Your task to perform on an android device: Search for vegetarian restaurants on Maps Image 0: 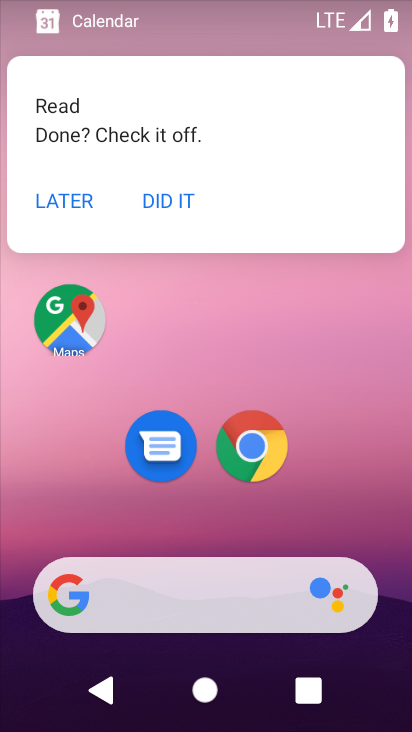
Step 0: press home button
Your task to perform on an android device: Search for vegetarian restaurants on Maps Image 1: 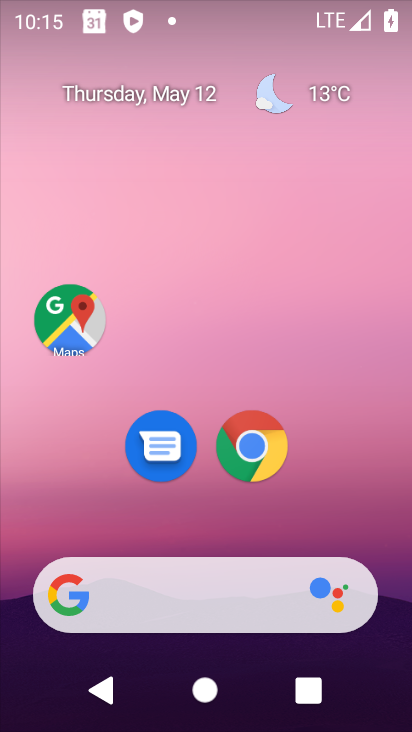
Step 1: drag from (276, 532) to (364, 60)
Your task to perform on an android device: Search for vegetarian restaurants on Maps Image 2: 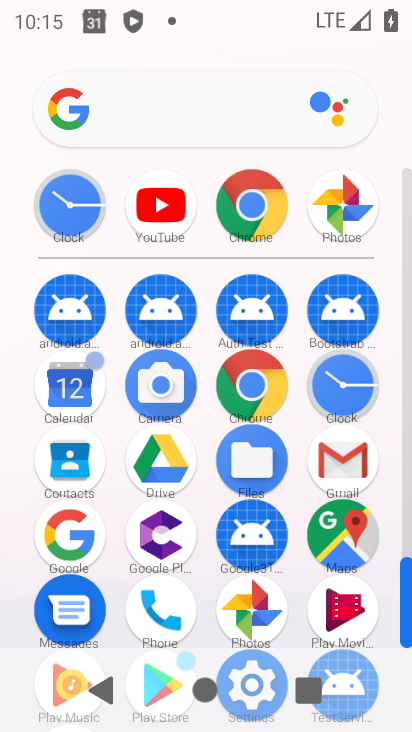
Step 2: click (324, 542)
Your task to perform on an android device: Search for vegetarian restaurants on Maps Image 3: 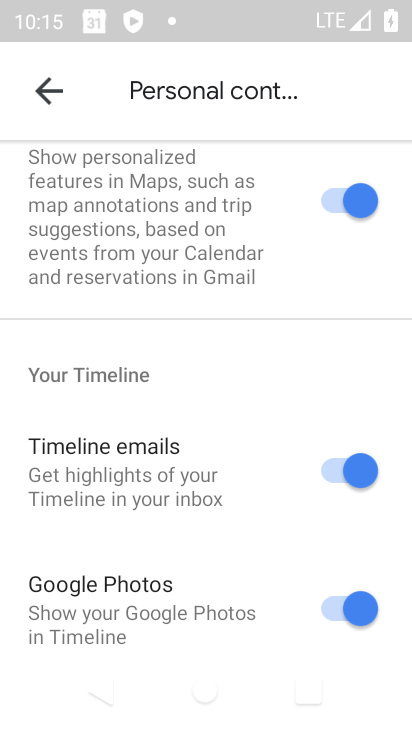
Step 3: press back button
Your task to perform on an android device: Search for vegetarian restaurants on Maps Image 4: 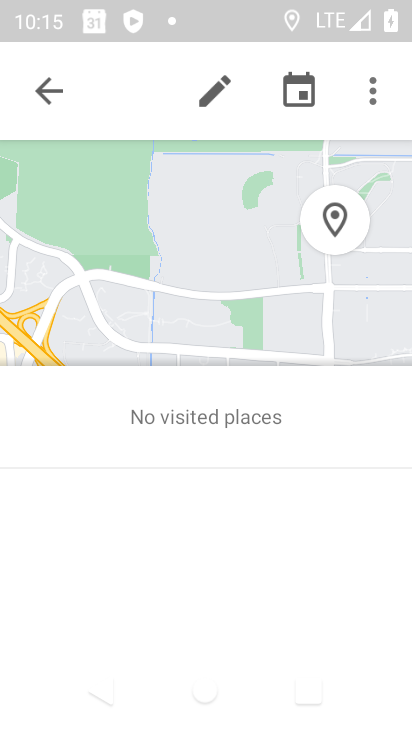
Step 4: press back button
Your task to perform on an android device: Search for vegetarian restaurants on Maps Image 5: 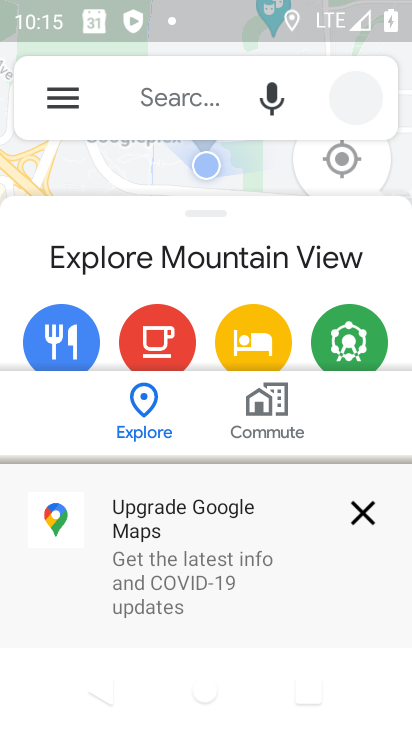
Step 5: click (171, 99)
Your task to perform on an android device: Search for vegetarian restaurants on Maps Image 6: 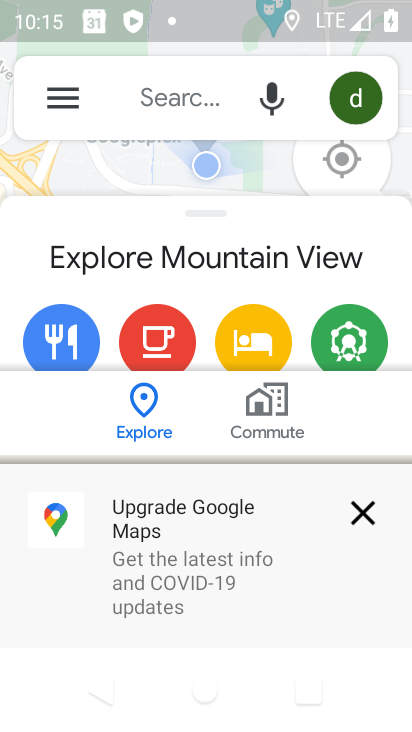
Step 6: click (171, 99)
Your task to perform on an android device: Search for vegetarian restaurants on Maps Image 7: 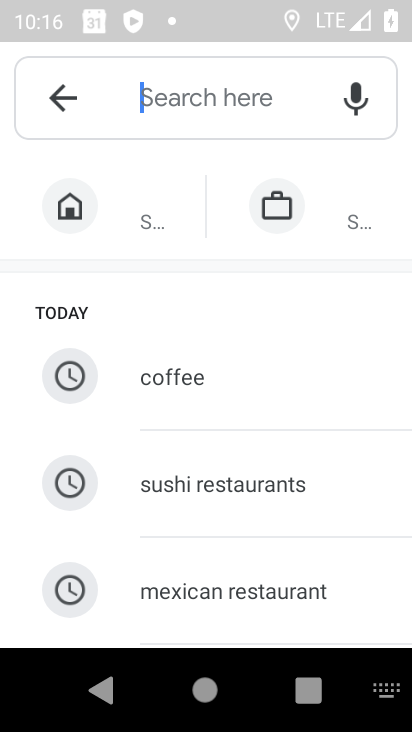
Step 7: type "vegetarian restaurant"
Your task to perform on an android device: Search for vegetarian restaurants on Maps Image 8: 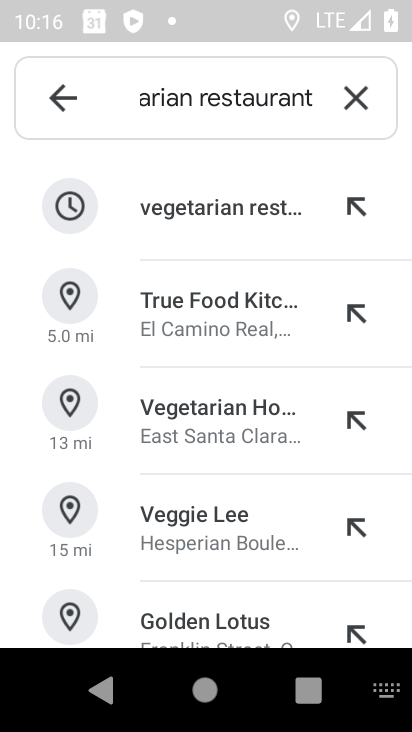
Step 8: click (197, 221)
Your task to perform on an android device: Search for vegetarian restaurants on Maps Image 9: 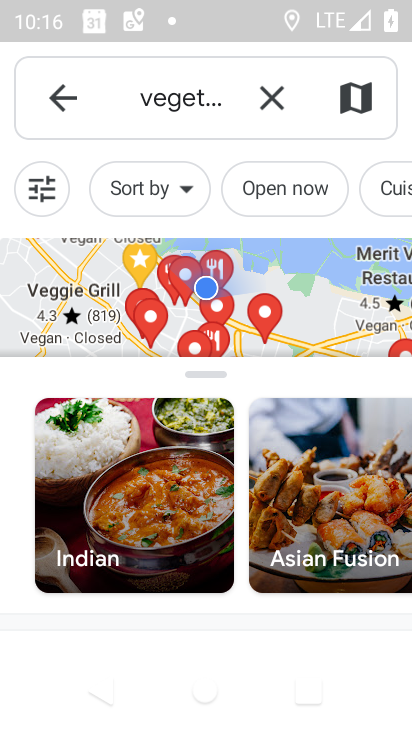
Step 9: task complete